Your task to perform on an android device: Go to Wikipedia Image 0: 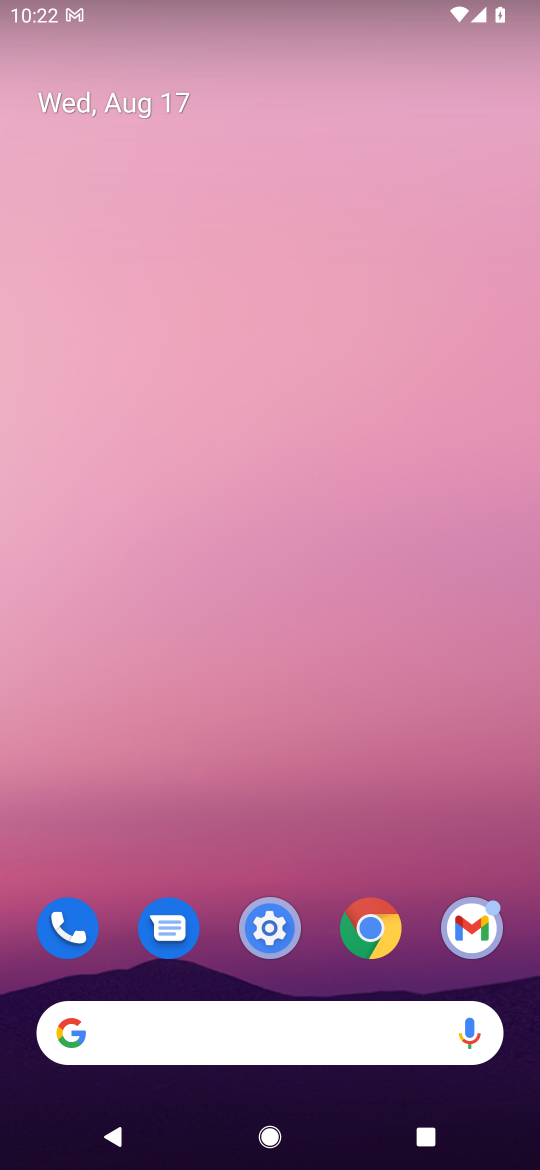
Step 0: click (369, 941)
Your task to perform on an android device: Go to Wikipedia Image 1: 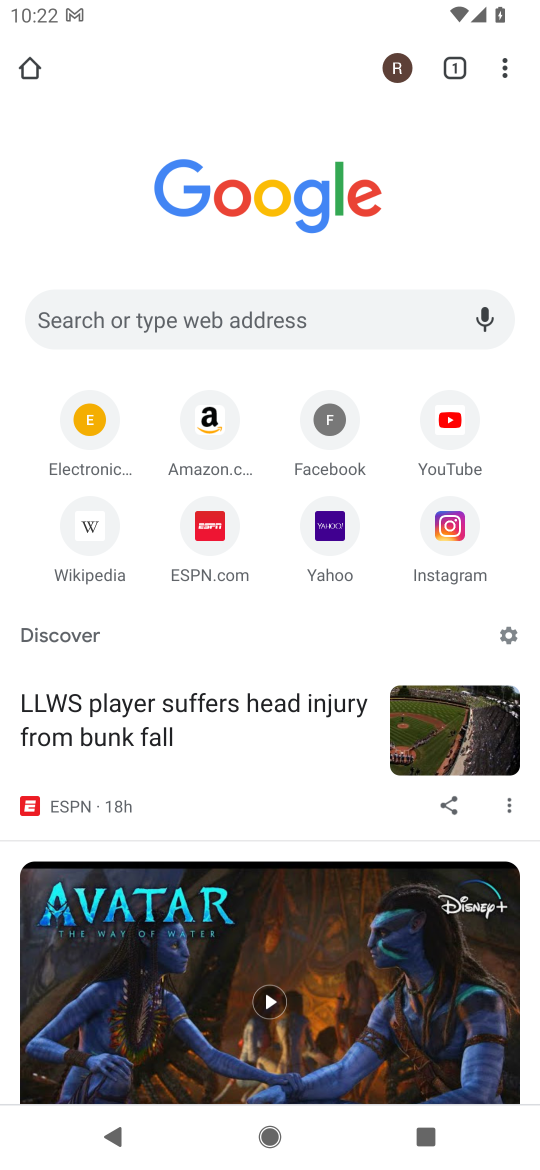
Step 1: click (82, 531)
Your task to perform on an android device: Go to Wikipedia Image 2: 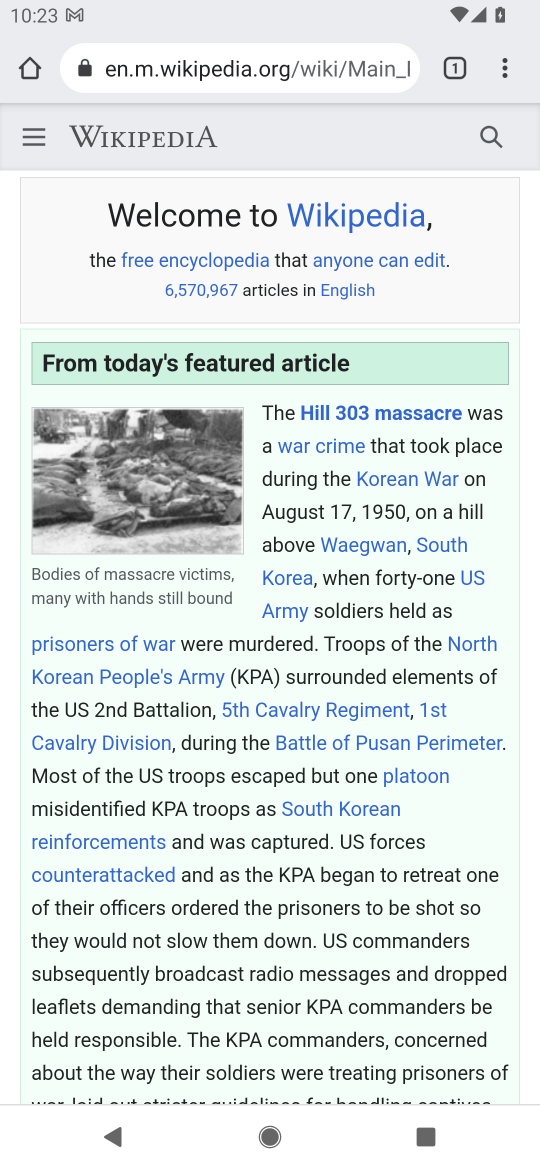
Step 2: task complete